Your task to perform on an android device: Search for seafood restaurants on Google Maps Image 0: 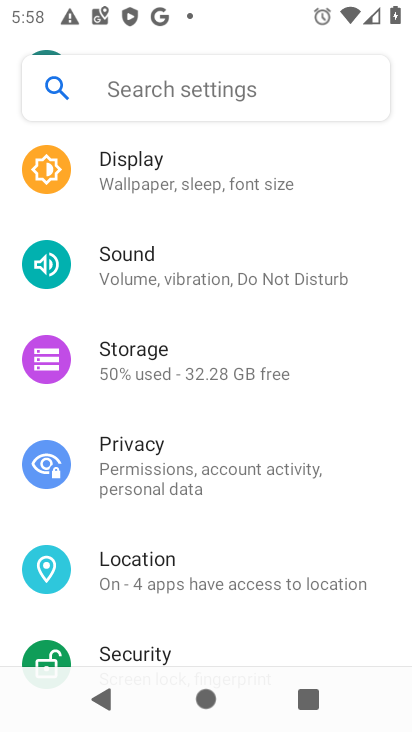
Step 0: press home button
Your task to perform on an android device: Search for seafood restaurants on Google Maps Image 1: 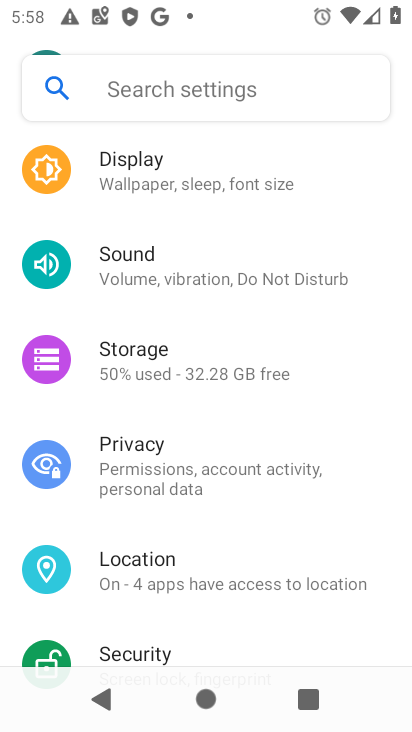
Step 1: press home button
Your task to perform on an android device: Search for seafood restaurants on Google Maps Image 2: 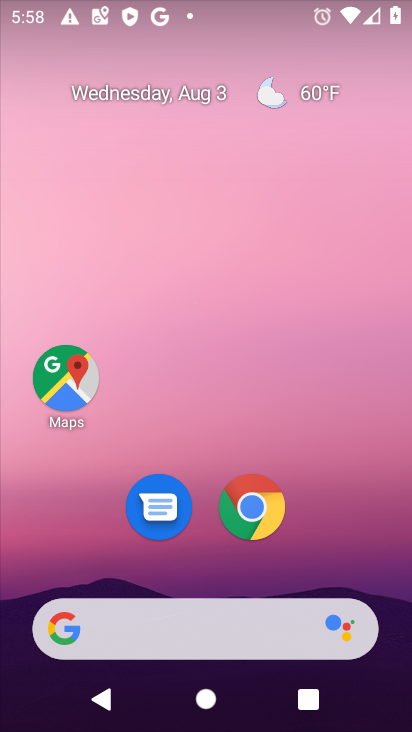
Step 2: drag from (335, 517) to (327, 8)
Your task to perform on an android device: Search for seafood restaurants on Google Maps Image 3: 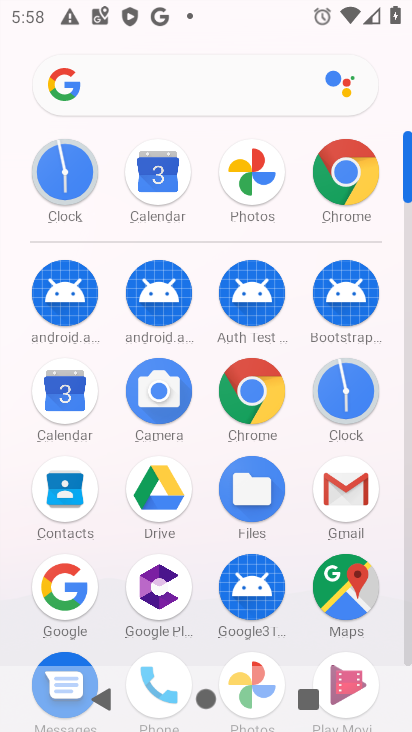
Step 3: click (356, 596)
Your task to perform on an android device: Search for seafood restaurants on Google Maps Image 4: 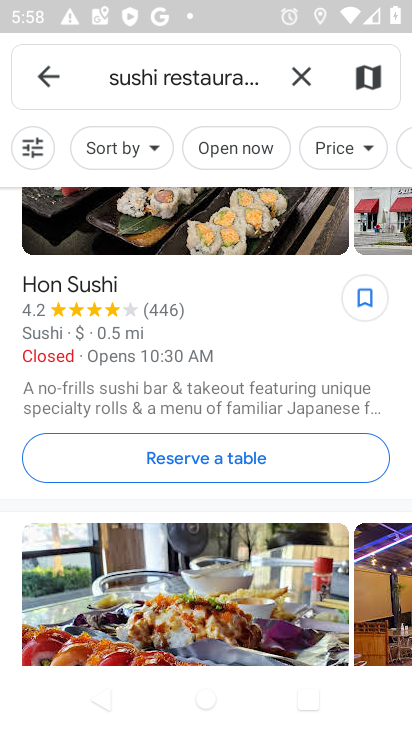
Step 4: click (216, 64)
Your task to perform on an android device: Search for seafood restaurants on Google Maps Image 5: 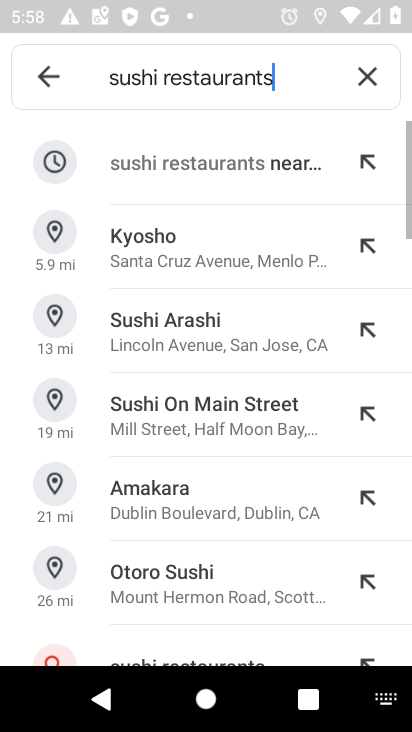
Step 5: click (369, 73)
Your task to perform on an android device: Search for seafood restaurants on Google Maps Image 6: 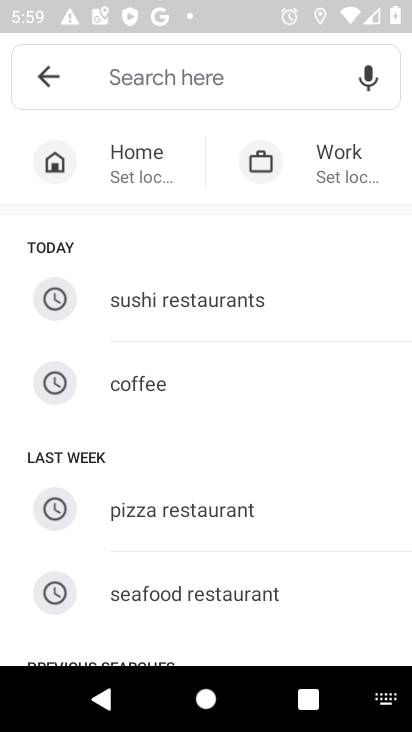
Step 6: type "seafood restaurants"
Your task to perform on an android device: Search for seafood restaurants on Google Maps Image 7: 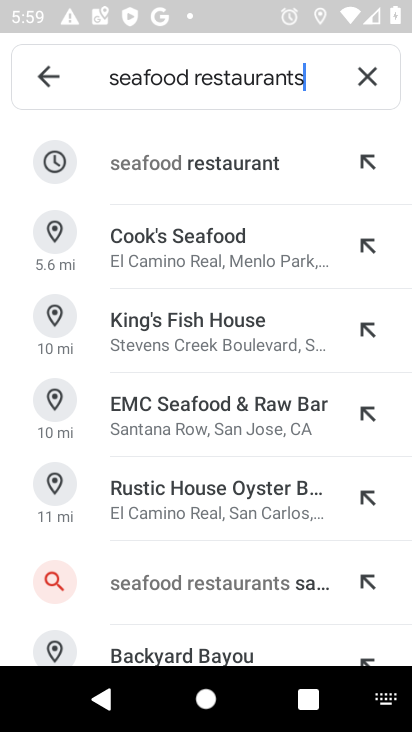
Step 7: press enter
Your task to perform on an android device: Search for seafood restaurants on Google Maps Image 8: 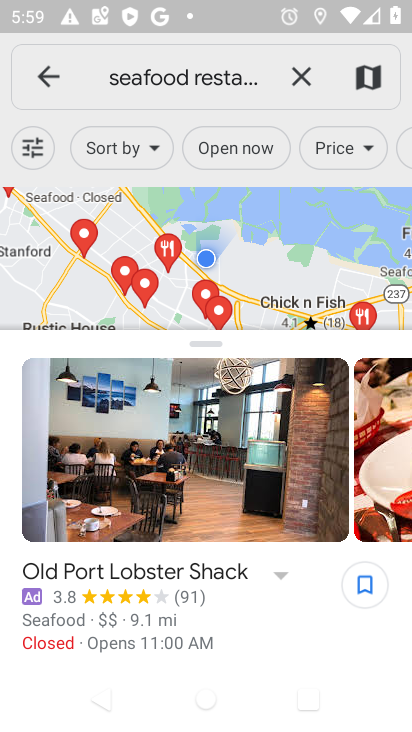
Step 8: task complete